Your task to perform on an android device: turn off data saver in the chrome app Image 0: 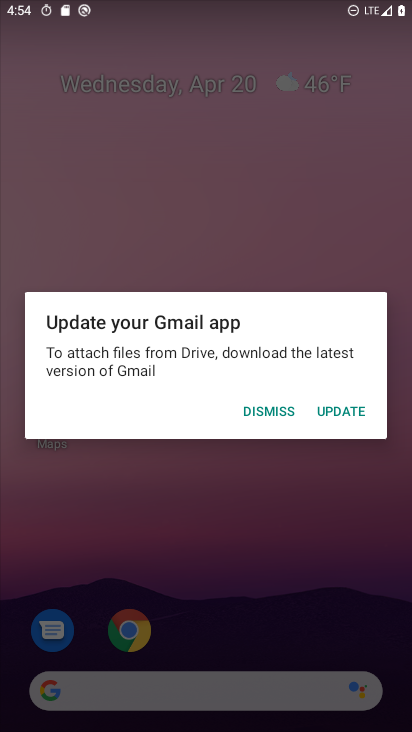
Step 0: press home button
Your task to perform on an android device: turn off data saver in the chrome app Image 1: 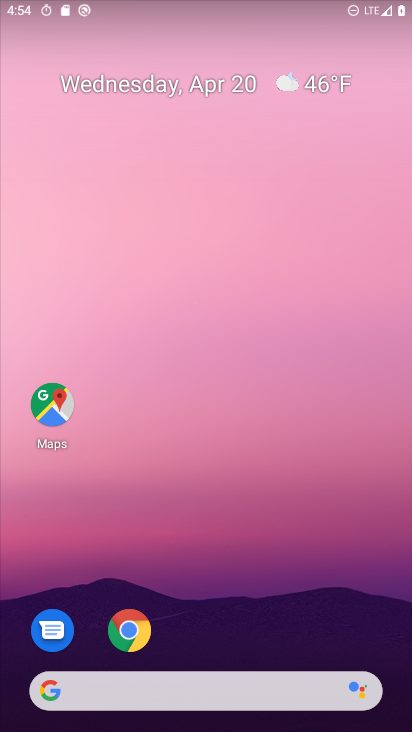
Step 1: drag from (303, 551) to (291, 89)
Your task to perform on an android device: turn off data saver in the chrome app Image 2: 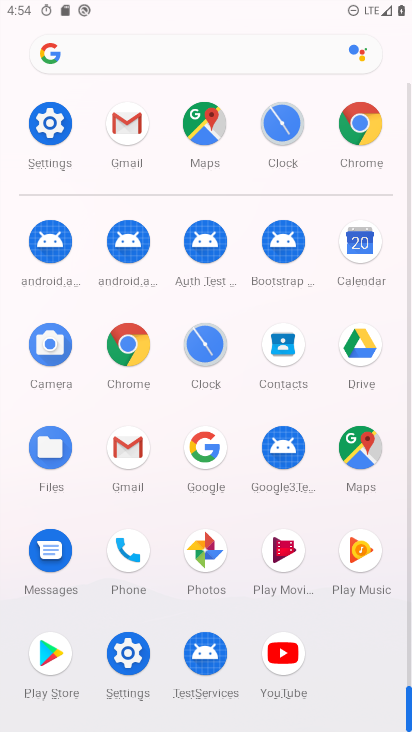
Step 2: click (138, 333)
Your task to perform on an android device: turn off data saver in the chrome app Image 3: 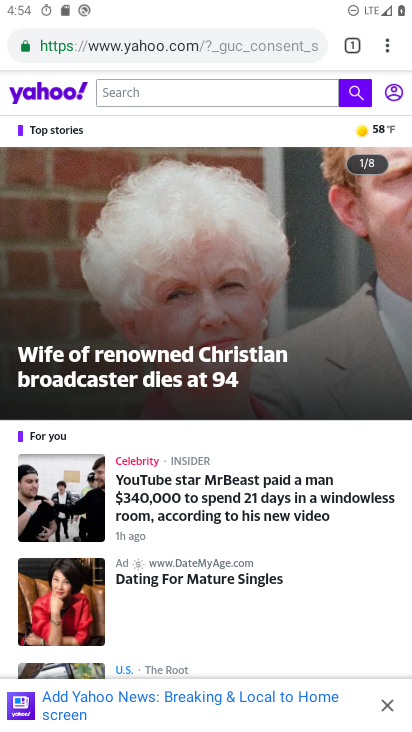
Step 3: click (374, 45)
Your task to perform on an android device: turn off data saver in the chrome app Image 4: 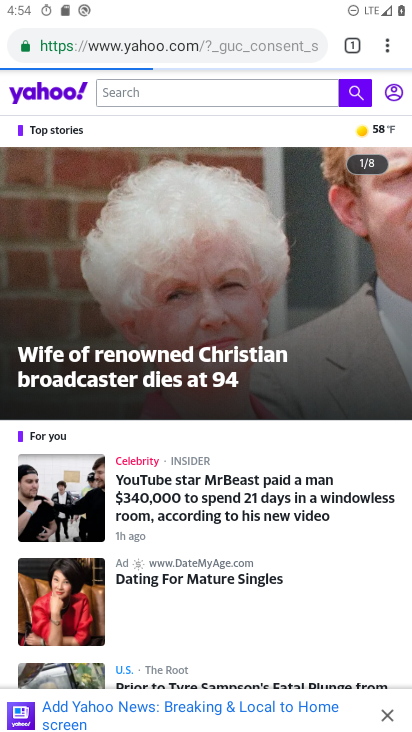
Step 4: click (388, 38)
Your task to perform on an android device: turn off data saver in the chrome app Image 5: 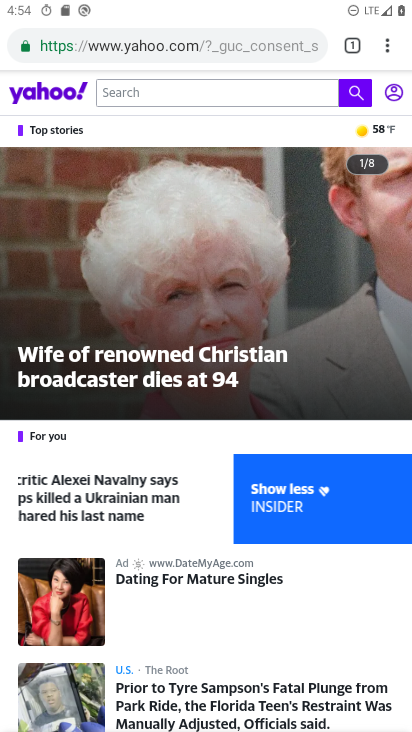
Step 5: click (382, 48)
Your task to perform on an android device: turn off data saver in the chrome app Image 6: 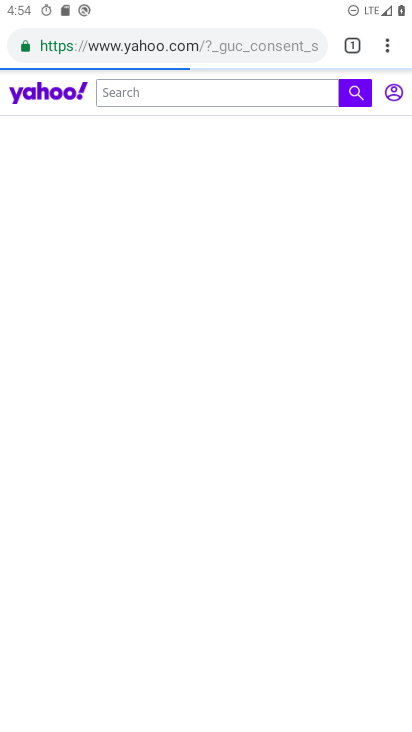
Step 6: click (382, 48)
Your task to perform on an android device: turn off data saver in the chrome app Image 7: 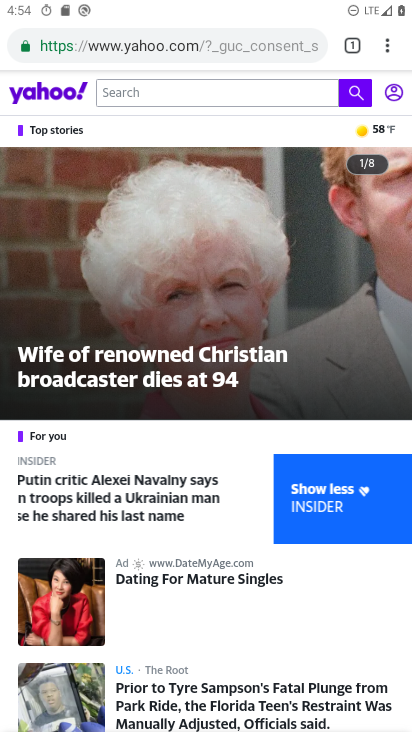
Step 7: drag from (390, 44) to (258, 602)
Your task to perform on an android device: turn off data saver in the chrome app Image 8: 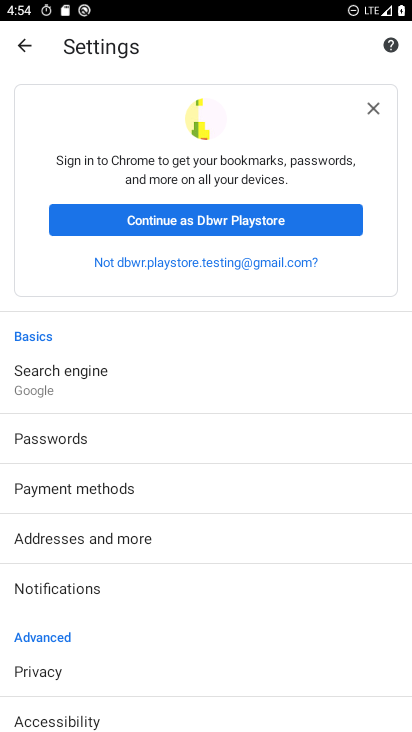
Step 8: drag from (140, 706) to (156, 256)
Your task to perform on an android device: turn off data saver in the chrome app Image 9: 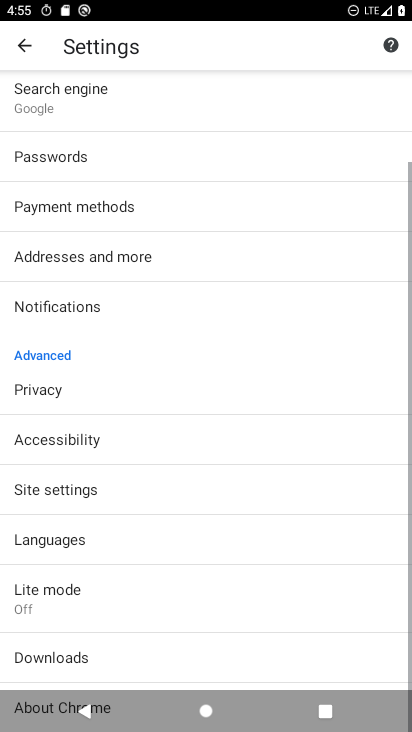
Step 9: click (62, 582)
Your task to perform on an android device: turn off data saver in the chrome app Image 10: 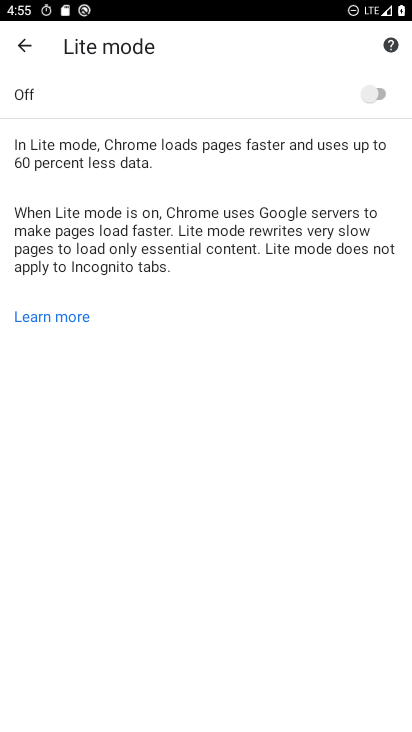
Step 10: task complete